Your task to perform on an android device: Open internet settings Image 0: 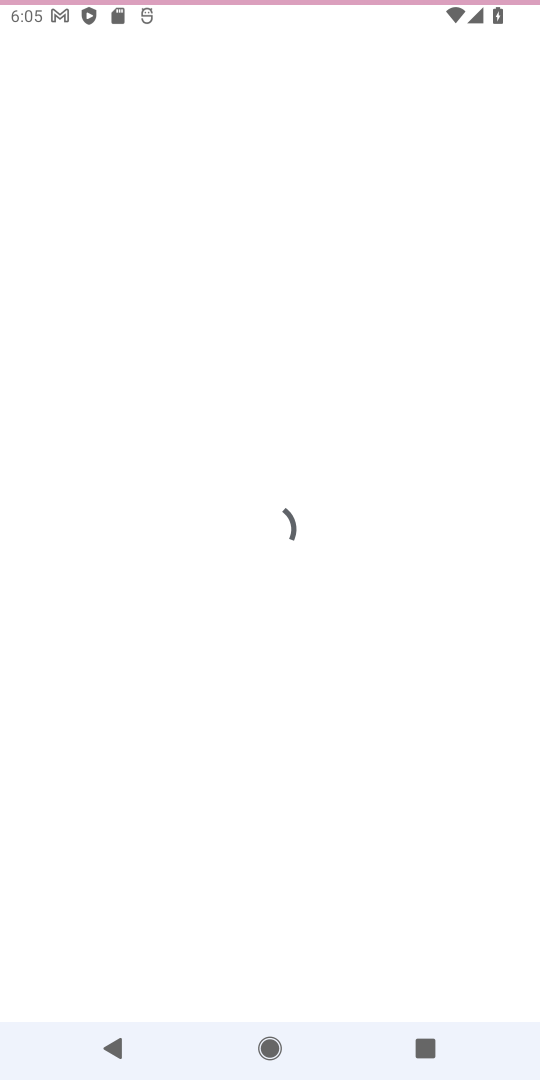
Step 0: press home button
Your task to perform on an android device: Open internet settings Image 1: 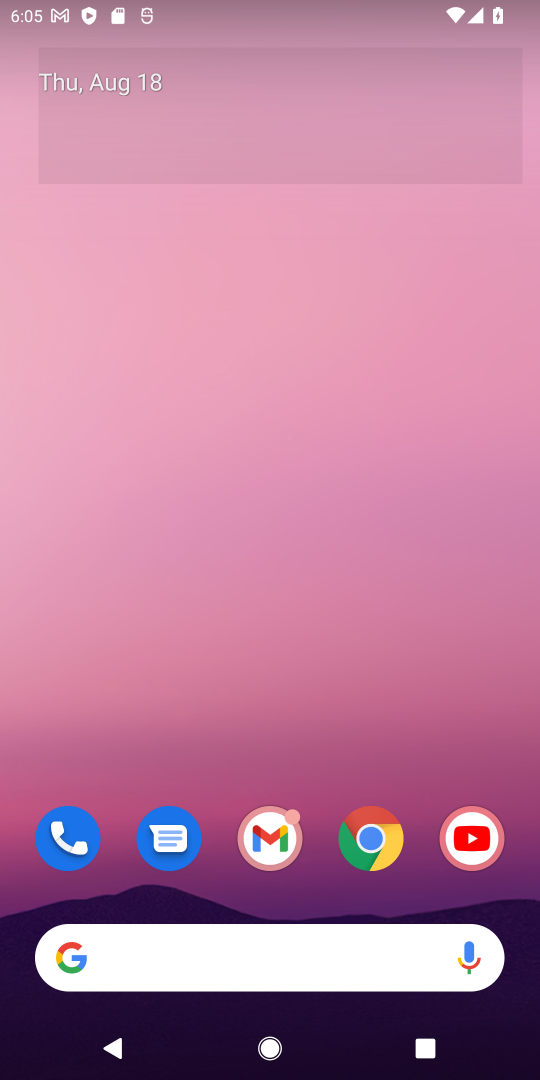
Step 1: drag from (316, 859) to (349, 25)
Your task to perform on an android device: Open internet settings Image 2: 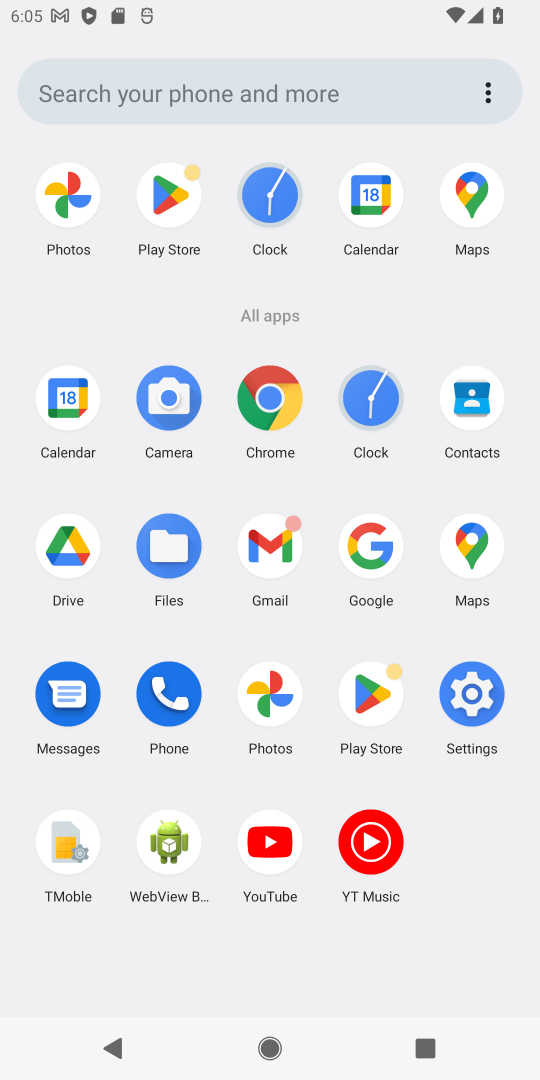
Step 2: click (473, 712)
Your task to perform on an android device: Open internet settings Image 3: 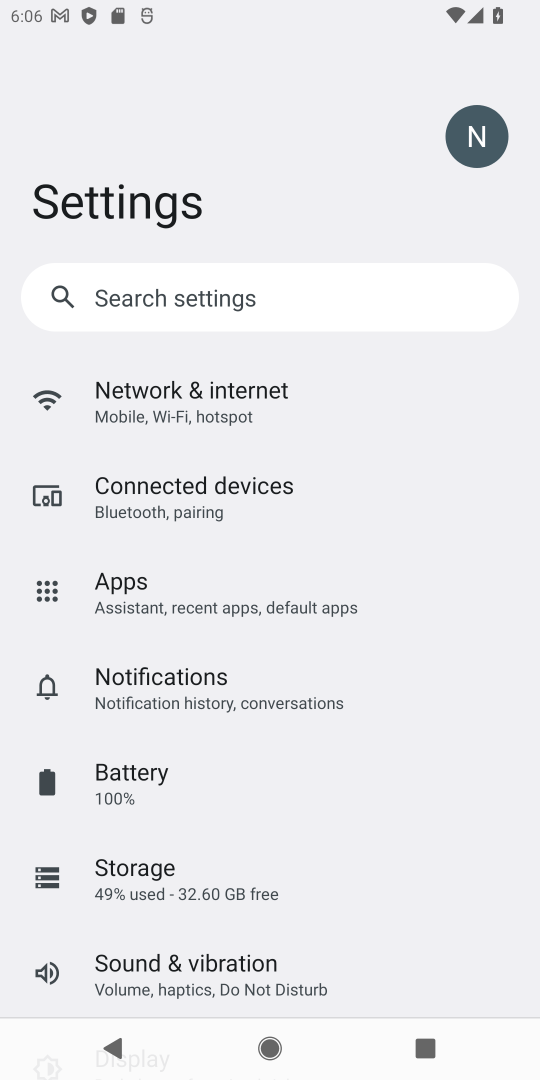
Step 3: click (159, 406)
Your task to perform on an android device: Open internet settings Image 4: 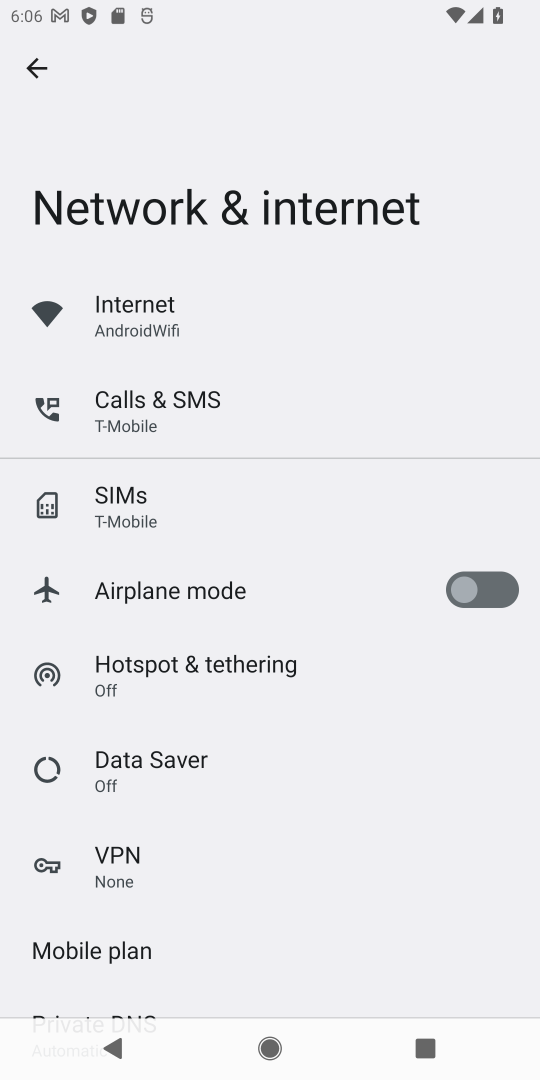
Step 4: click (117, 309)
Your task to perform on an android device: Open internet settings Image 5: 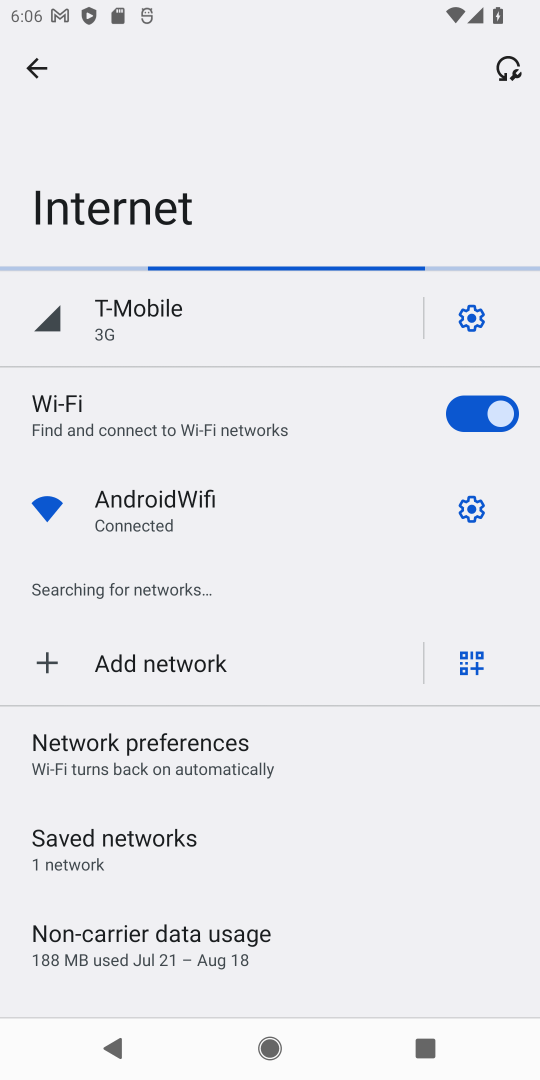
Step 5: task complete